Your task to perform on an android device: Show me the alarms in the clock app Image 0: 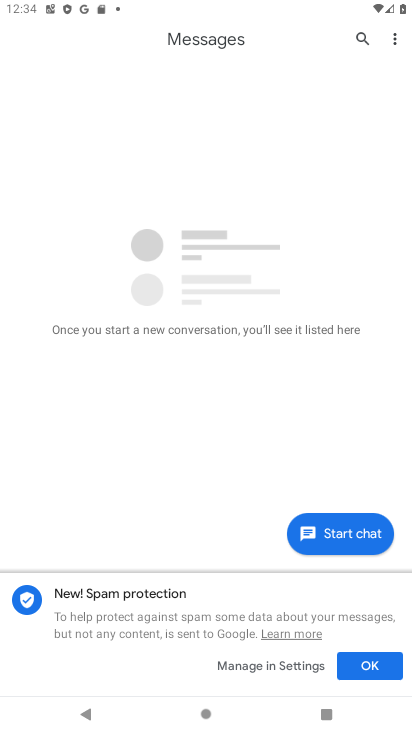
Step 0: press home button
Your task to perform on an android device: Show me the alarms in the clock app Image 1: 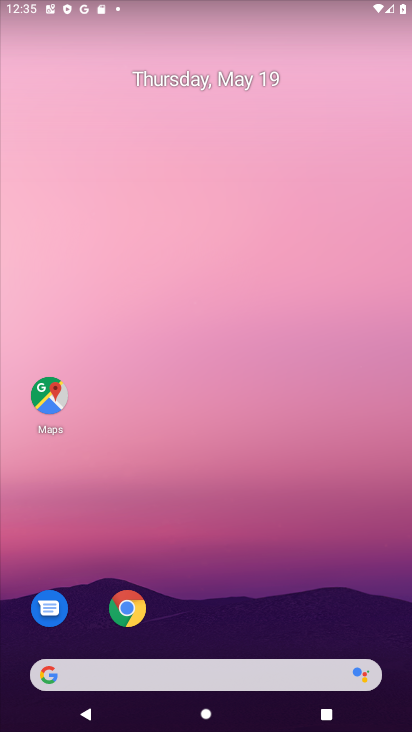
Step 1: drag from (256, 574) to (284, 282)
Your task to perform on an android device: Show me the alarms in the clock app Image 2: 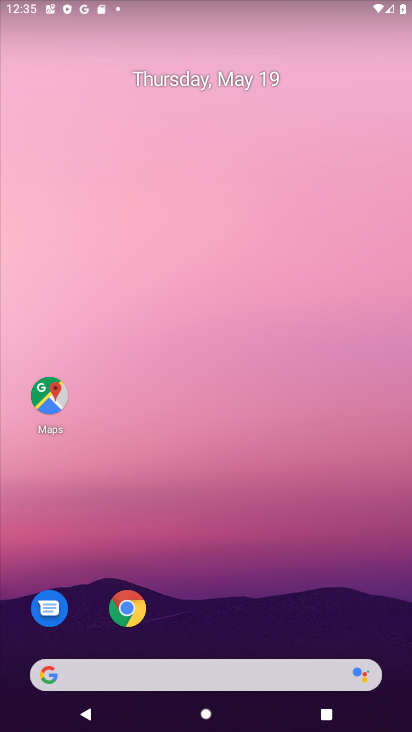
Step 2: drag from (234, 601) to (262, 197)
Your task to perform on an android device: Show me the alarms in the clock app Image 3: 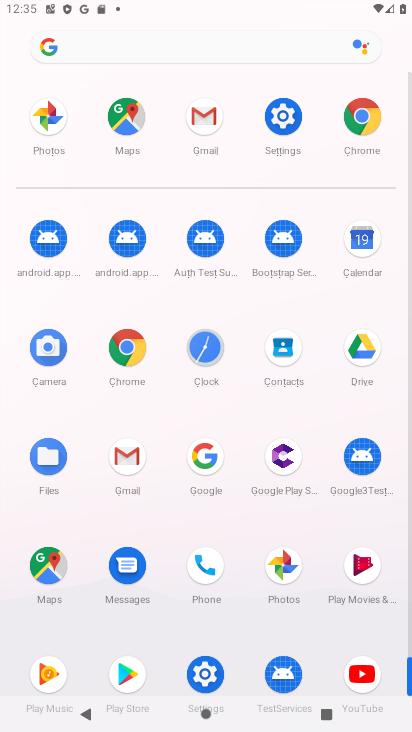
Step 3: click (202, 345)
Your task to perform on an android device: Show me the alarms in the clock app Image 4: 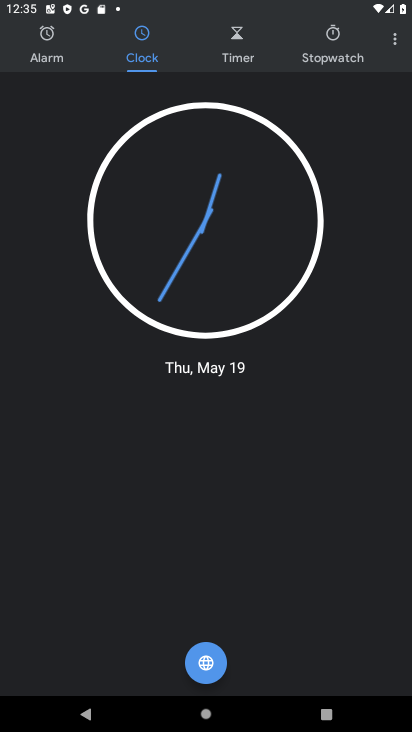
Step 4: click (41, 51)
Your task to perform on an android device: Show me the alarms in the clock app Image 5: 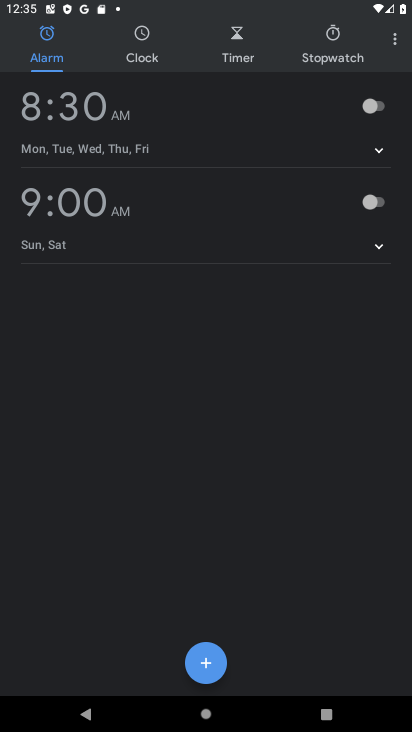
Step 5: task complete